Your task to perform on an android device: Toggle the flashlight Image 0: 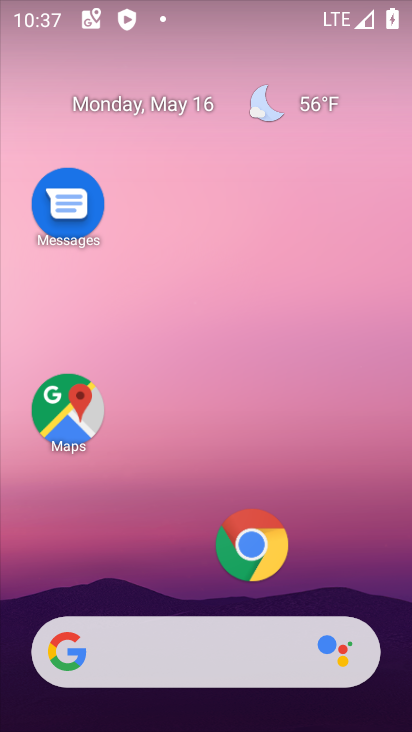
Step 0: drag from (197, 594) to (220, 9)
Your task to perform on an android device: Toggle the flashlight Image 1: 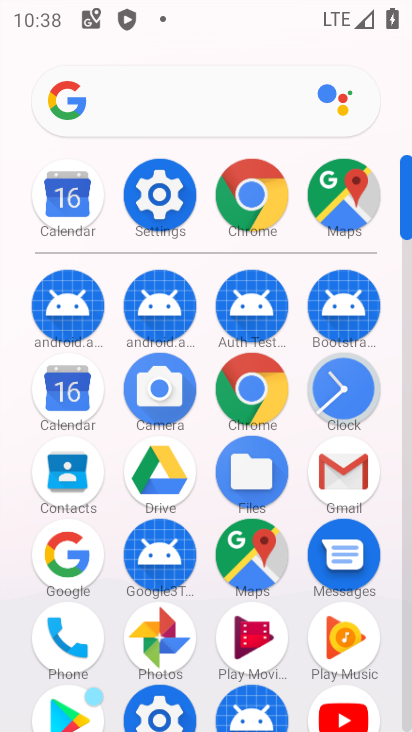
Step 1: click (144, 218)
Your task to perform on an android device: Toggle the flashlight Image 2: 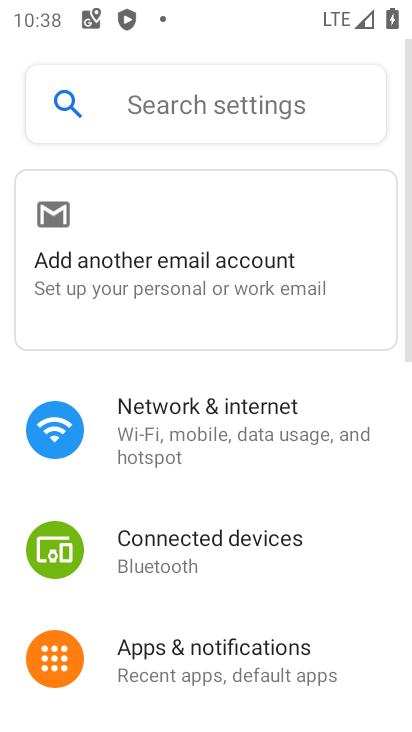
Step 2: task complete